Your task to perform on an android device: Open Maps and search for coffee Image 0: 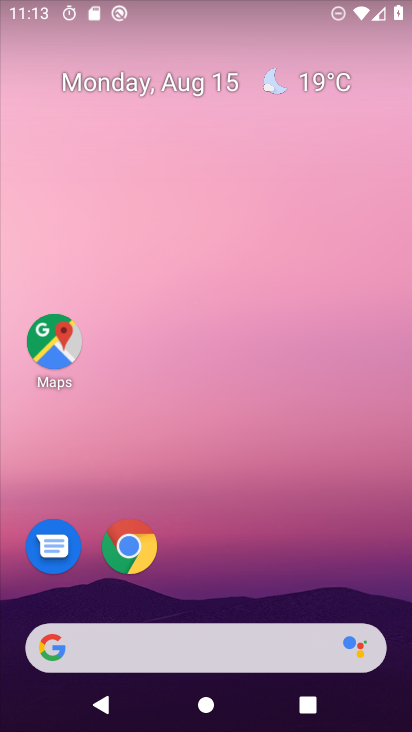
Step 0: click (62, 349)
Your task to perform on an android device: Open Maps and search for coffee Image 1: 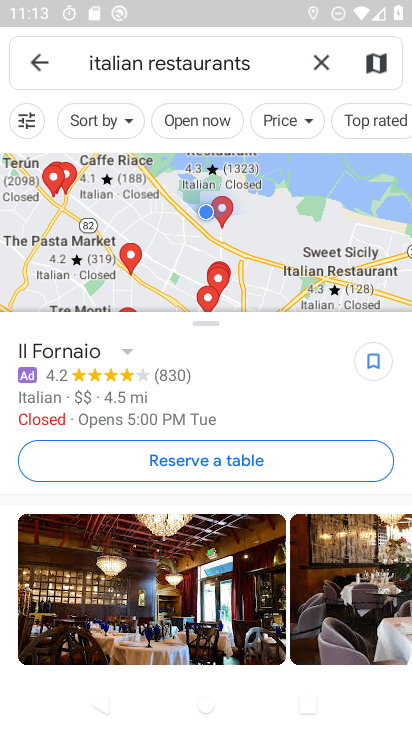
Step 1: click (321, 58)
Your task to perform on an android device: Open Maps and search for coffee Image 2: 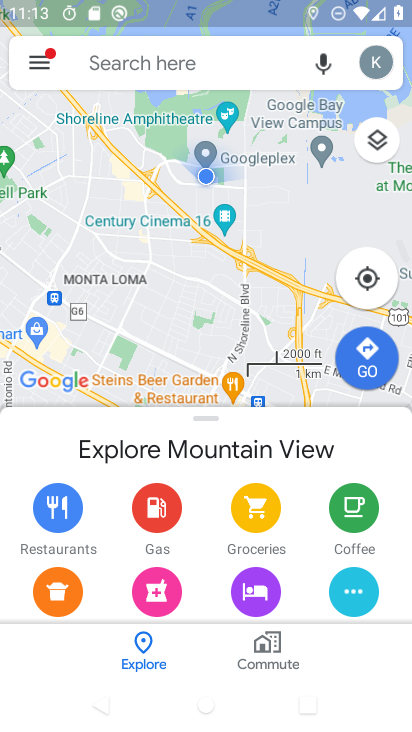
Step 2: click (174, 63)
Your task to perform on an android device: Open Maps and search for coffee Image 3: 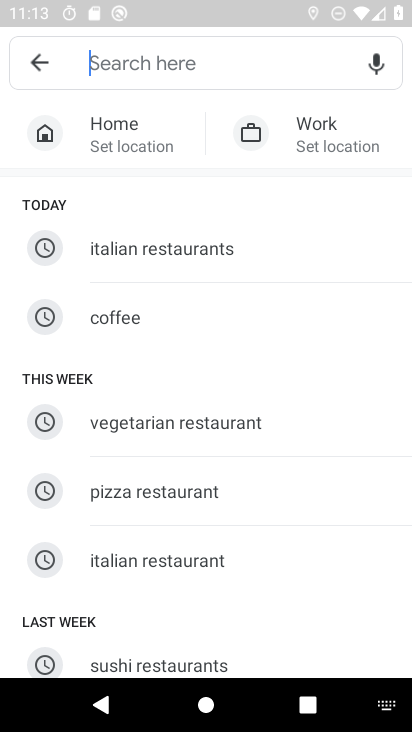
Step 3: type "coffee"
Your task to perform on an android device: Open Maps and search for coffee Image 4: 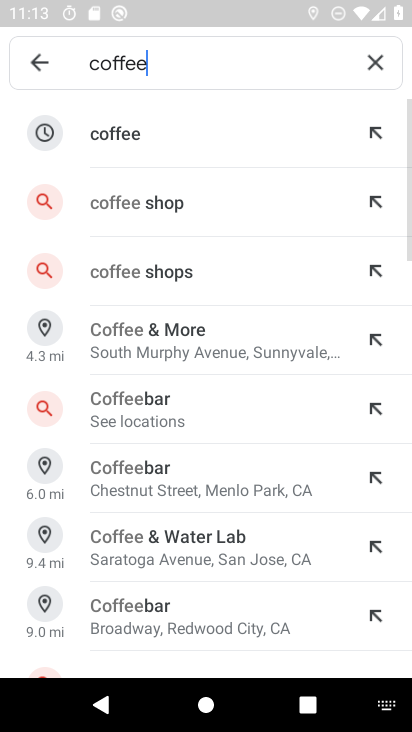
Step 4: click (104, 129)
Your task to perform on an android device: Open Maps and search for coffee Image 5: 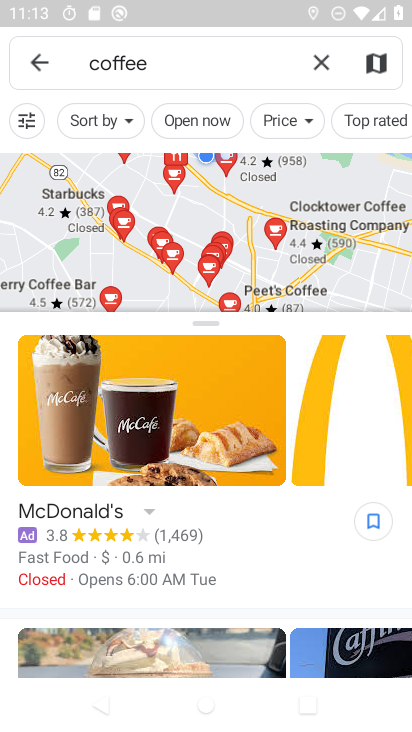
Step 5: task complete